Your task to perform on an android device: open app "Adobe Acrobat Reader" (install if not already installed) Image 0: 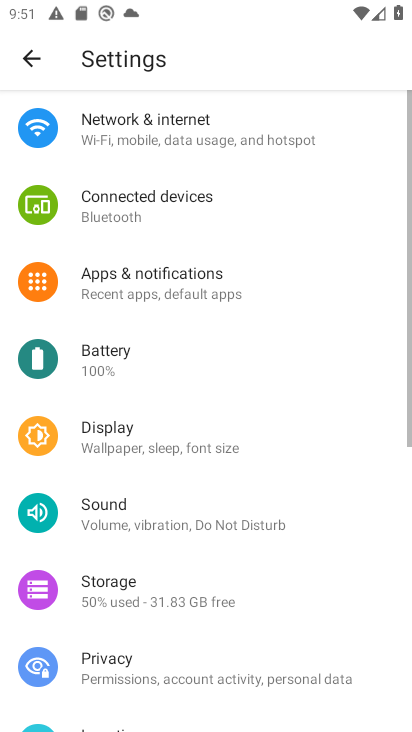
Step 0: press home button
Your task to perform on an android device: open app "Adobe Acrobat Reader" (install if not already installed) Image 1: 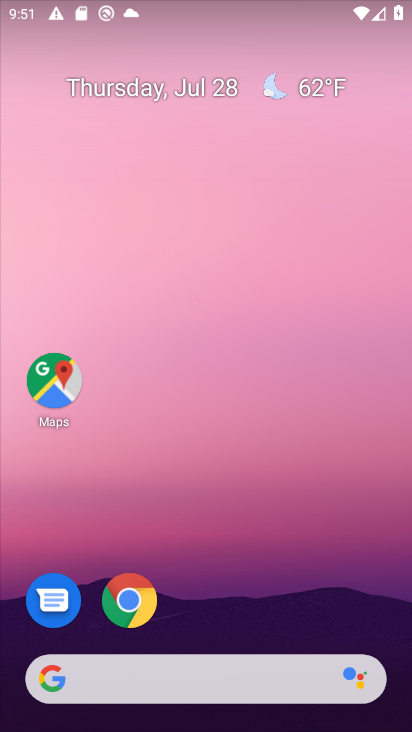
Step 1: drag from (259, 649) to (257, 25)
Your task to perform on an android device: open app "Adobe Acrobat Reader" (install if not already installed) Image 2: 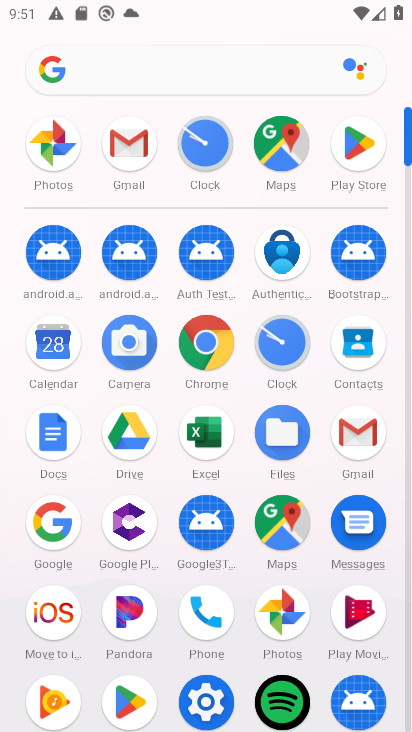
Step 2: click (361, 144)
Your task to perform on an android device: open app "Adobe Acrobat Reader" (install if not already installed) Image 3: 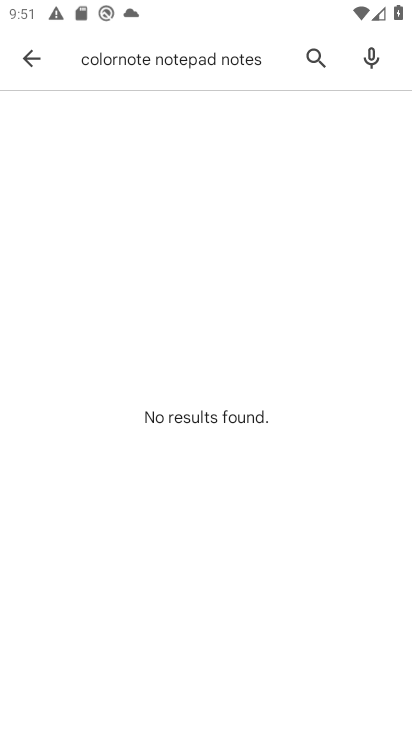
Step 3: click (315, 52)
Your task to perform on an android device: open app "Adobe Acrobat Reader" (install if not already installed) Image 4: 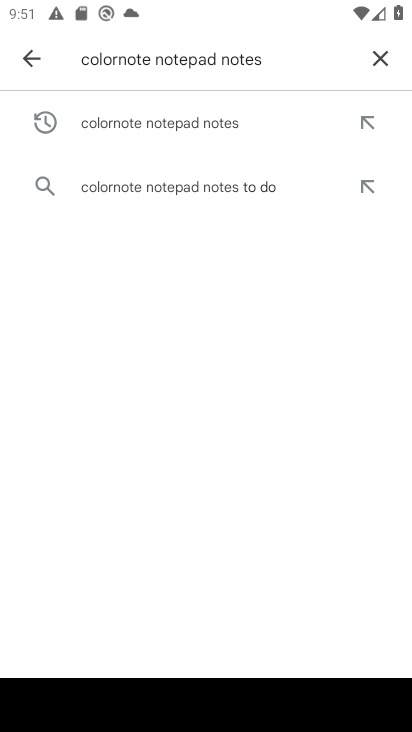
Step 4: click (373, 65)
Your task to perform on an android device: open app "Adobe Acrobat Reader" (install if not already installed) Image 5: 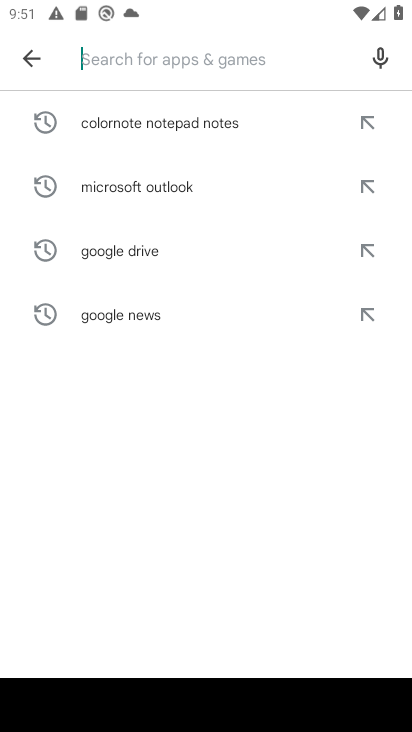
Step 5: click (246, 66)
Your task to perform on an android device: open app "Adobe Acrobat Reader" (install if not already installed) Image 6: 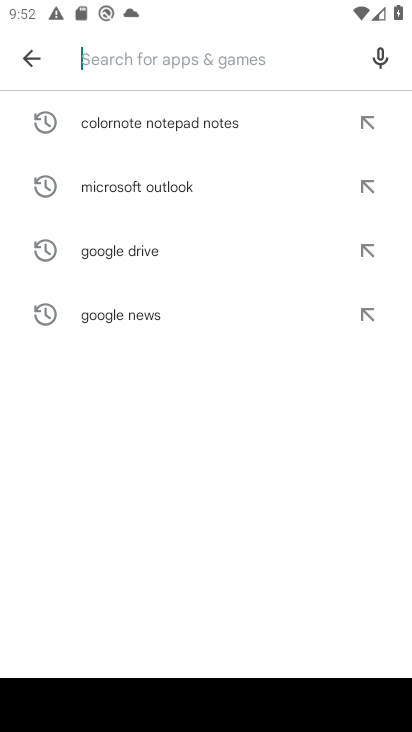
Step 6: type "Adobe Acrobat Reader"
Your task to perform on an android device: open app "Adobe Acrobat Reader" (install if not already installed) Image 7: 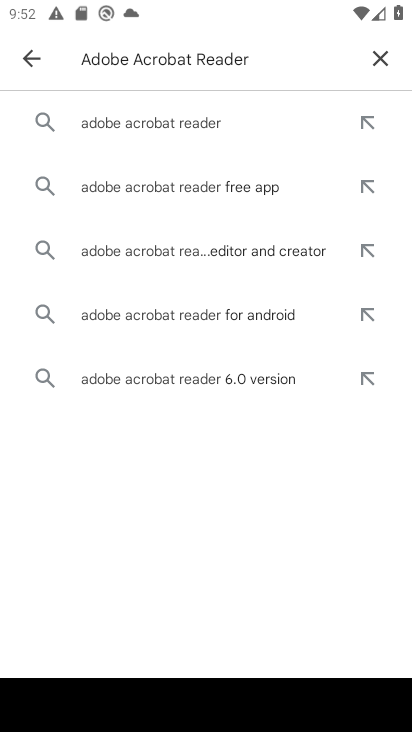
Step 7: click (194, 130)
Your task to perform on an android device: open app "Adobe Acrobat Reader" (install if not already installed) Image 8: 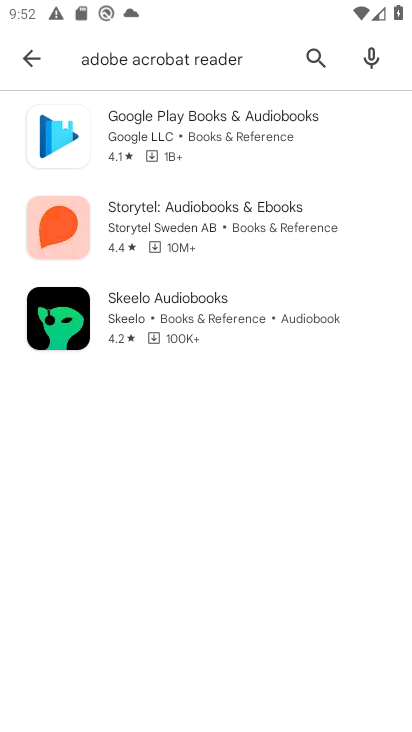
Step 8: drag from (178, 162) to (185, 246)
Your task to perform on an android device: open app "Adobe Acrobat Reader" (install if not already installed) Image 9: 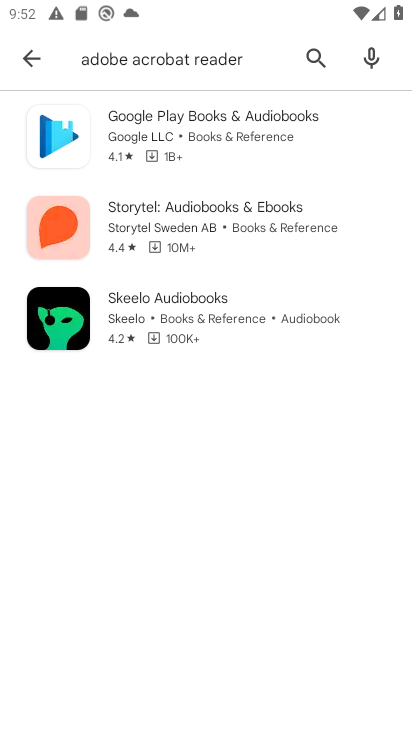
Step 9: click (307, 55)
Your task to perform on an android device: open app "Adobe Acrobat Reader" (install if not already installed) Image 10: 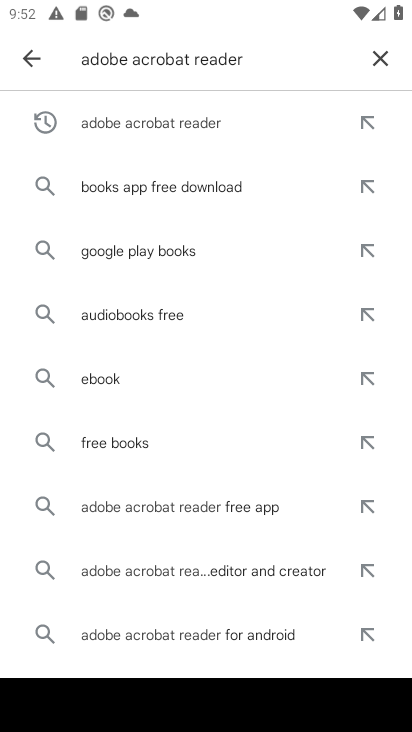
Step 10: click (161, 636)
Your task to perform on an android device: open app "Adobe Acrobat Reader" (install if not already installed) Image 11: 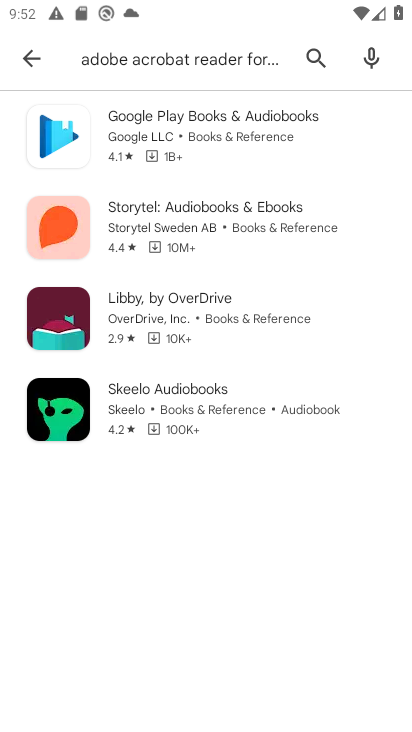
Step 11: click (309, 46)
Your task to perform on an android device: open app "Adobe Acrobat Reader" (install if not already installed) Image 12: 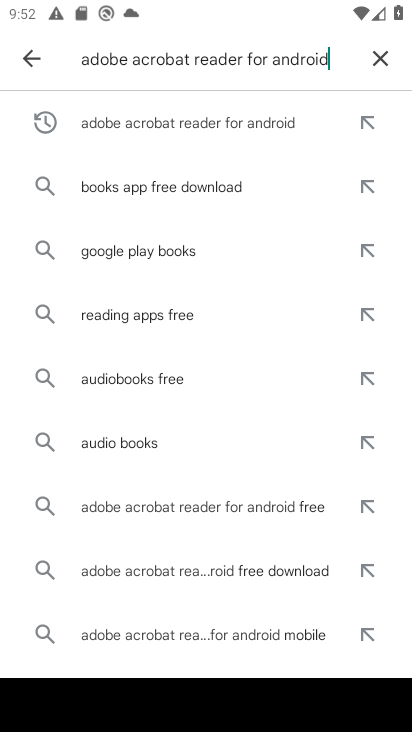
Step 12: click (159, 510)
Your task to perform on an android device: open app "Adobe Acrobat Reader" (install if not already installed) Image 13: 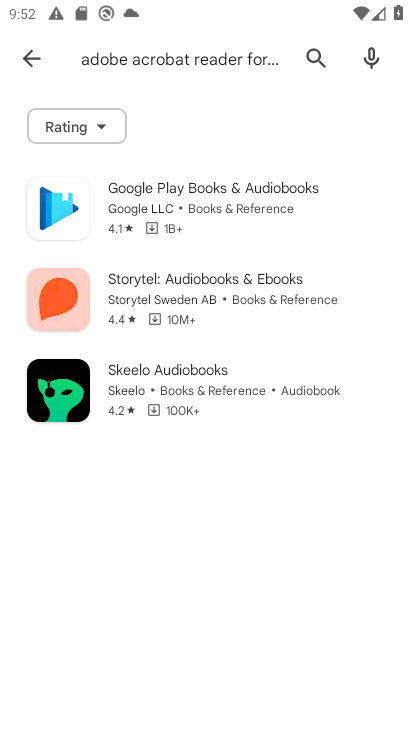
Step 13: task complete